Your task to perform on an android device: Add "usb-c to usb-a" to the cart on ebay Image 0: 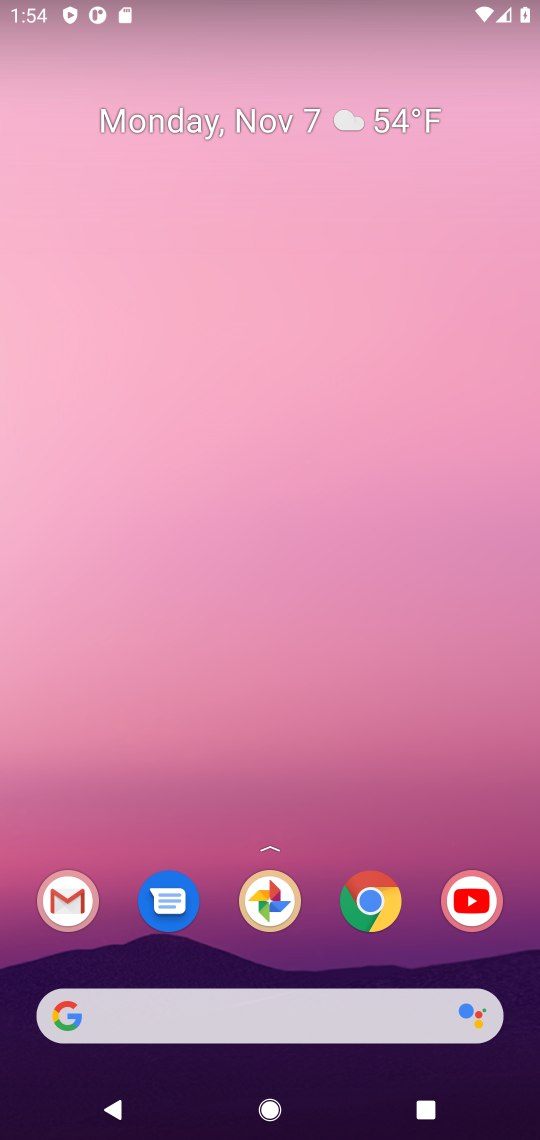
Step 0: click (368, 896)
Your task to perform on an android device: Add "usb-c to usb-a" to the cart on ebay Image 1: 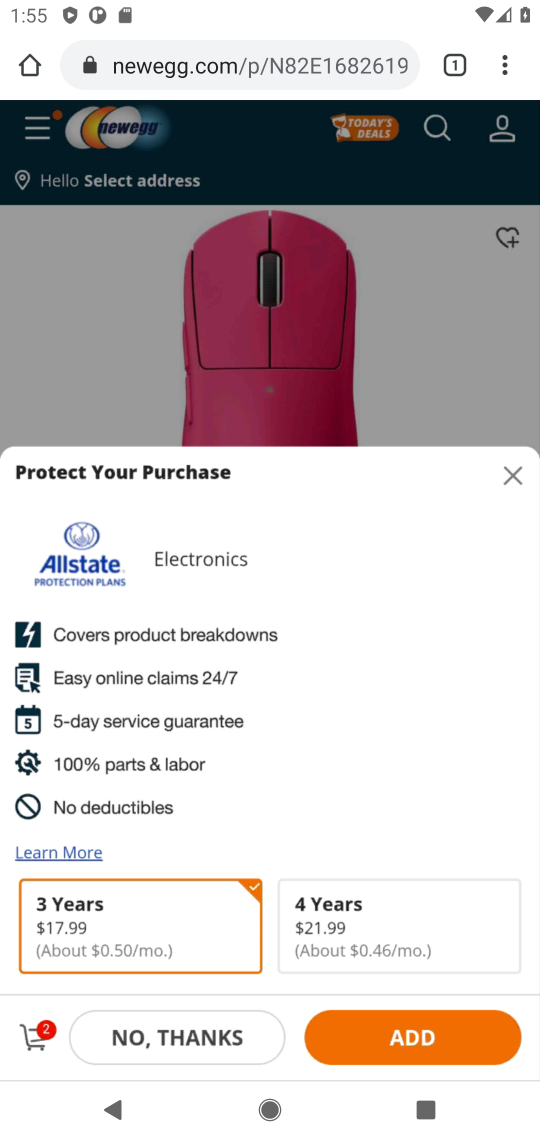
Step 1: click (368, 896)
Your task to perform on an android device: Add "usb-c to usb-a" to the cart on ebay Image 2: 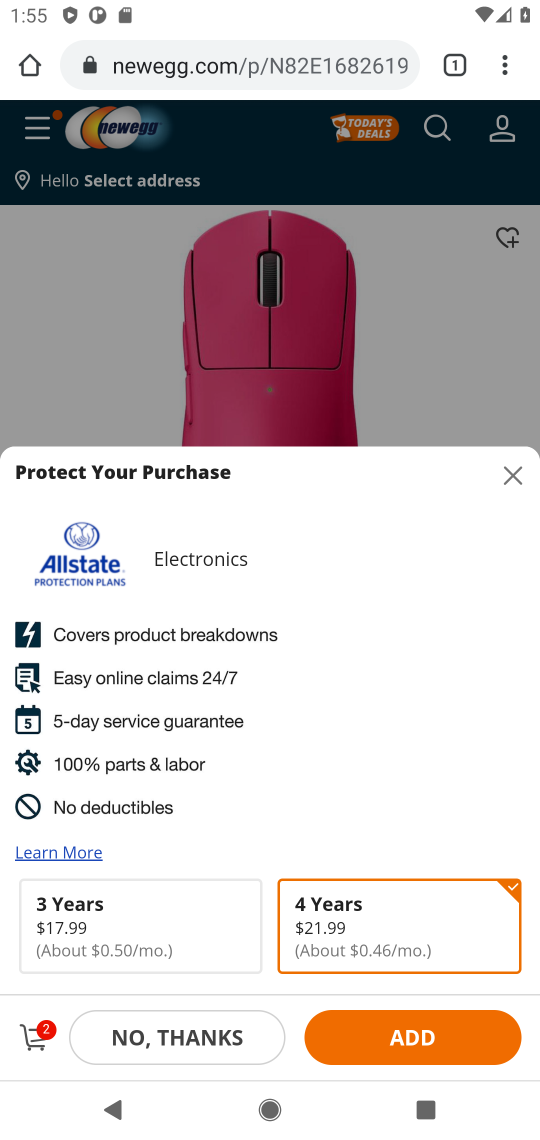
Step 2: click (163, 81)
Your task to perform on an android device: Add "usb-c to usb-a" to the cart on ebay Image 3: 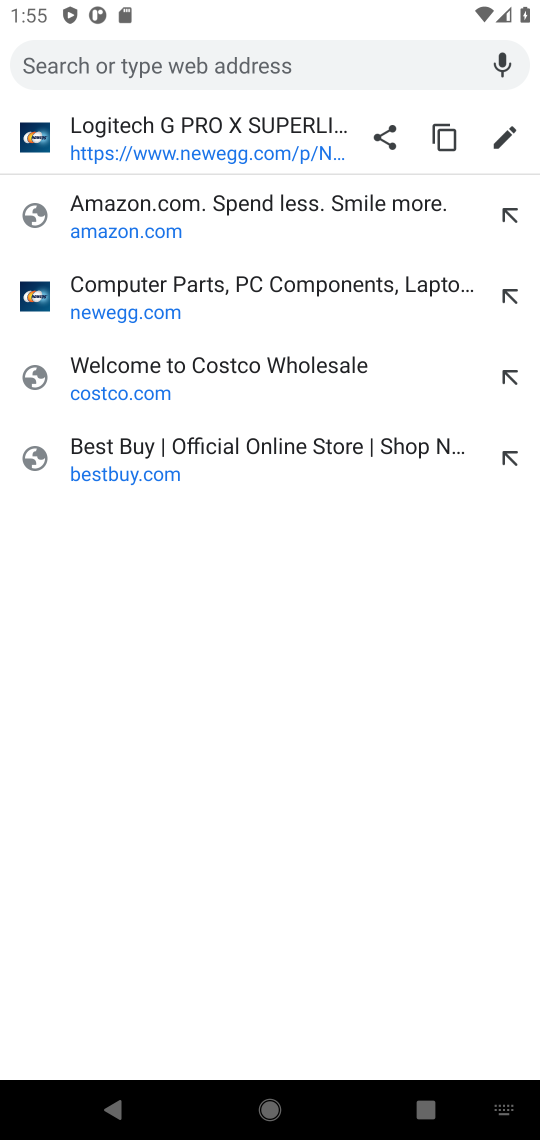
Step 3: type "ebay.com"
Your task to perform on an android device: Add "usb-c to usb-a" to the cart on ebay Image 4: 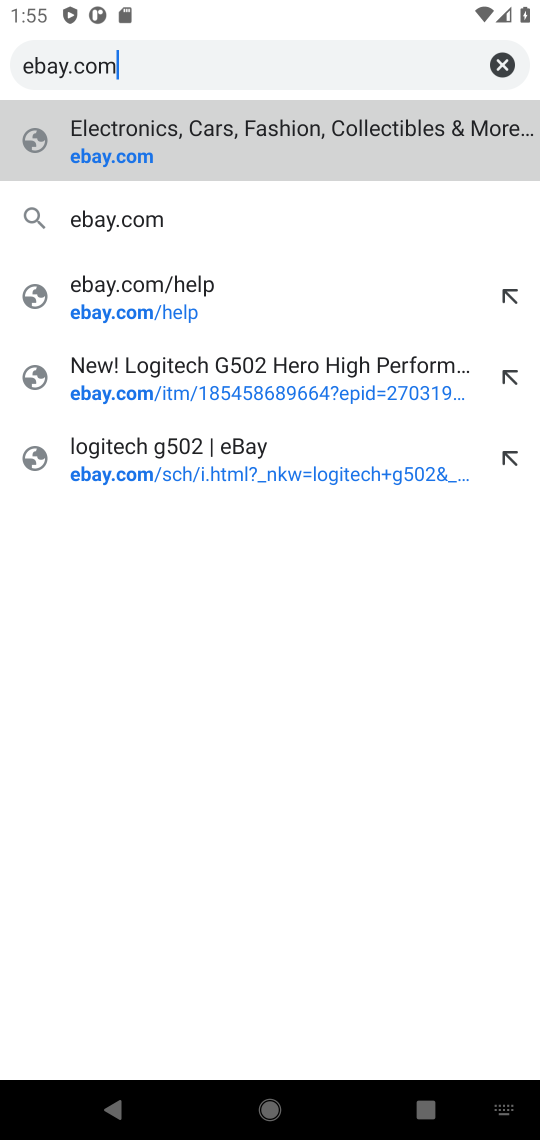
Step 4: click (103, 170)
Your task to perform on an android device: Add "usb-c to usb-a" to the cart on ebay Image 5: 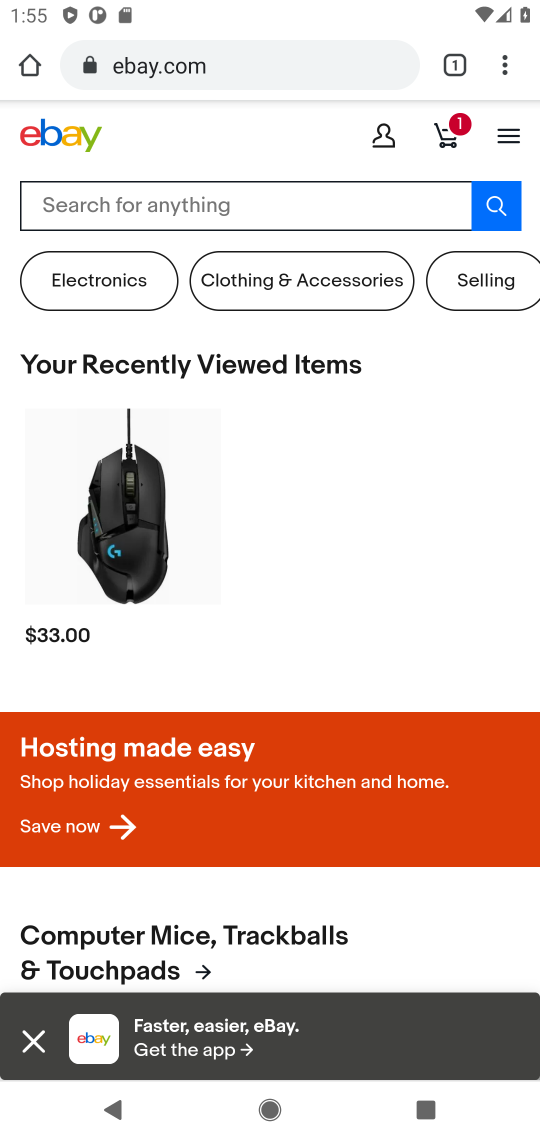
Step 5: click (121, 202)
Your task to perform on an android device: Add "usb-c to usb-a" to the cart on ebay Image 6: 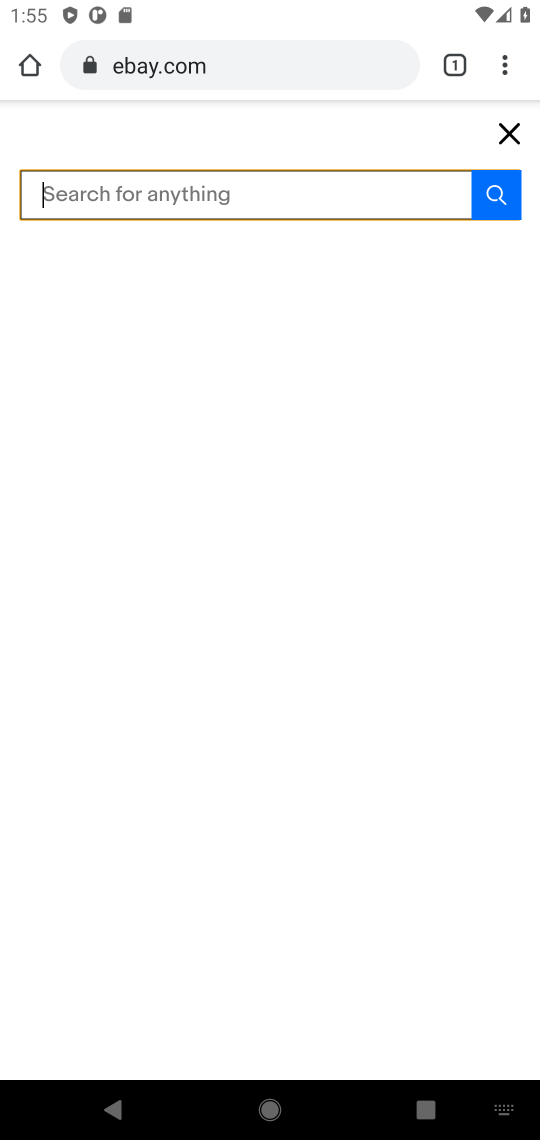
Step 6: type "usb-c to usb-a"
Your task to perform on an android device: Add "usb-c to usb-a" to the cart on ebay Image 7: 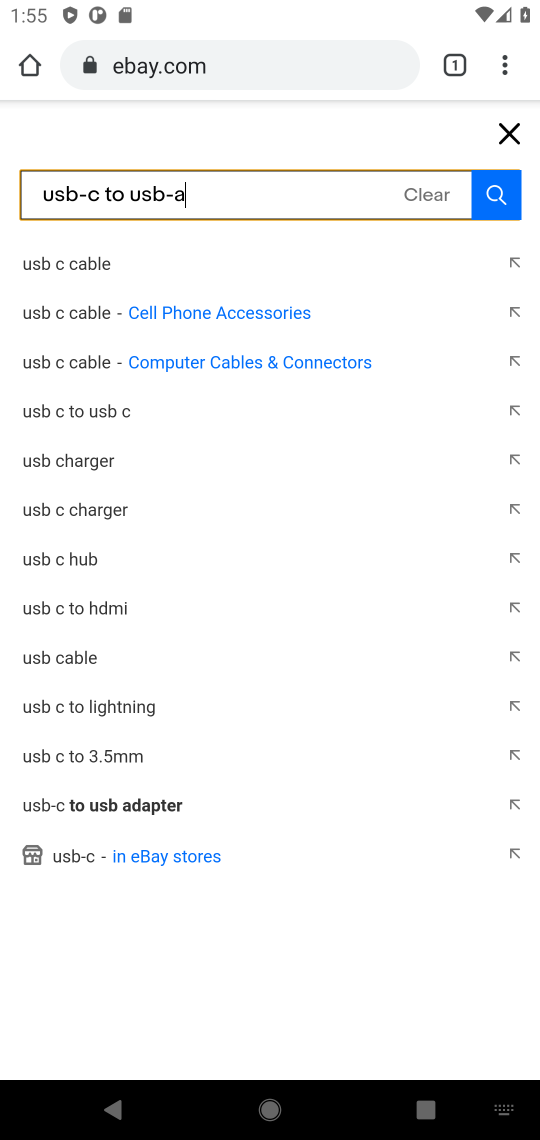
Step 7: click (493, 201)
Your task to perform on an android device: Add "usb-c to usb-a" to the cart on ebay Image 8: 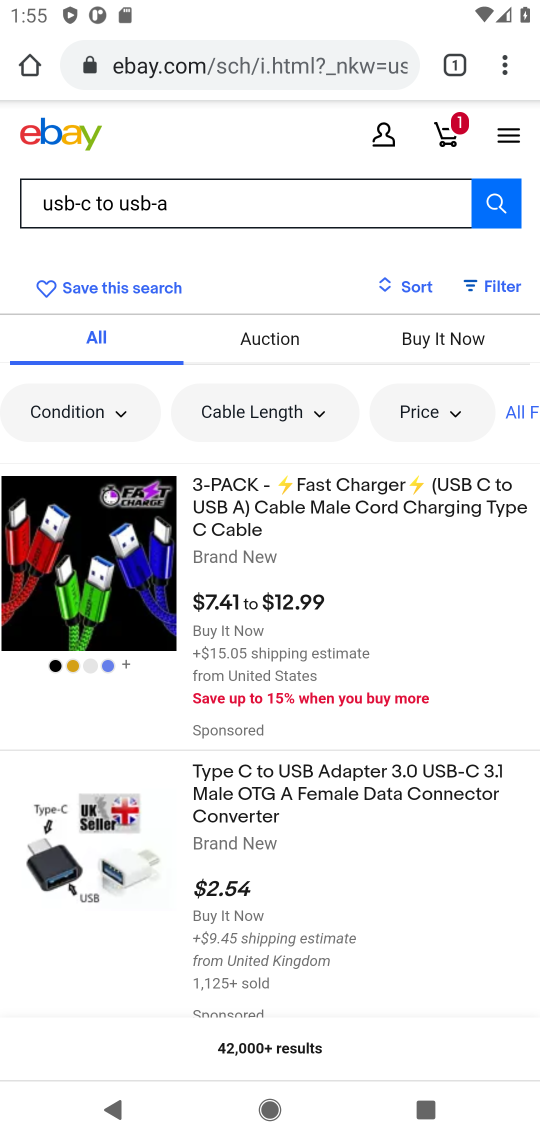
Step 8: click (100, 567)
Your task to perform on an android device: Add "usb-c to usb-a" to the cart on ebay Image 9: 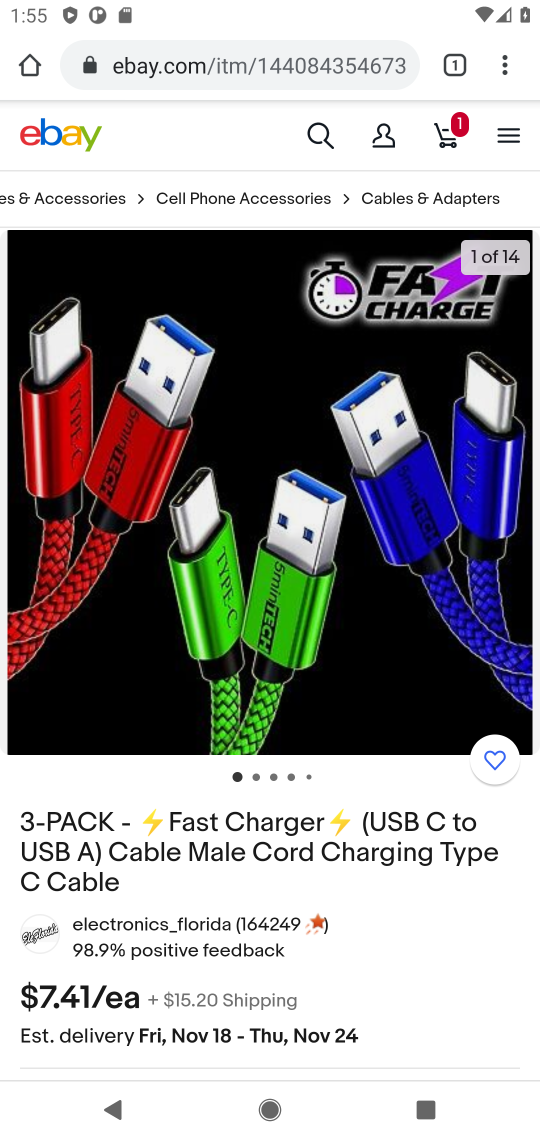
Step 9: drag from (299, 880) to (308, 418)
Your task to perform on an android device: Add "usb-c to usb-a" to the cart on ebay Image 10: 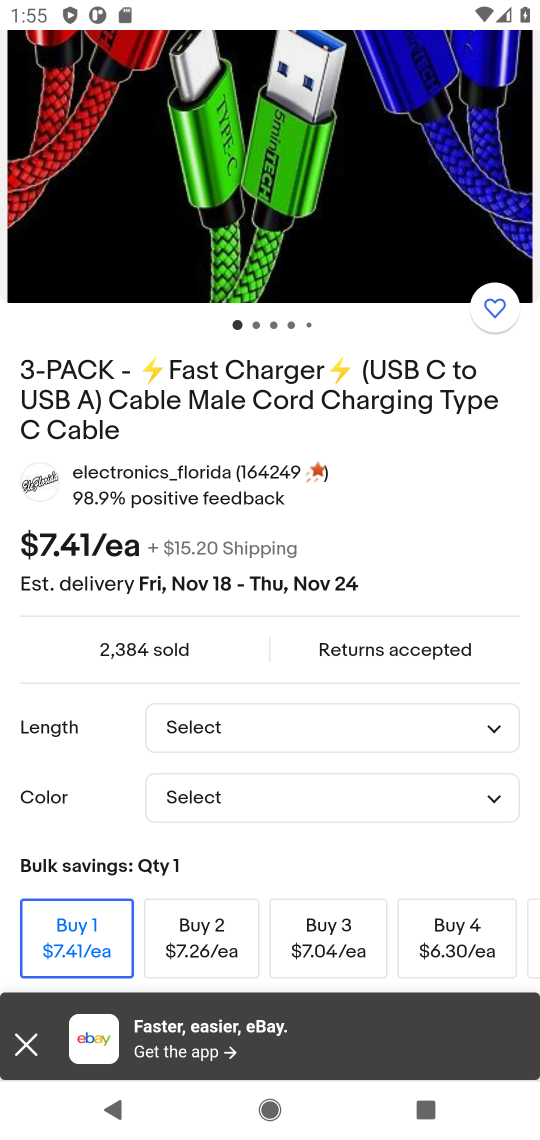
Step 10: drag from (290, 746) to (289, 337)
Your task to perform on an android device: Add "usb-c to usb-a" to the cart on ebay Image 11: 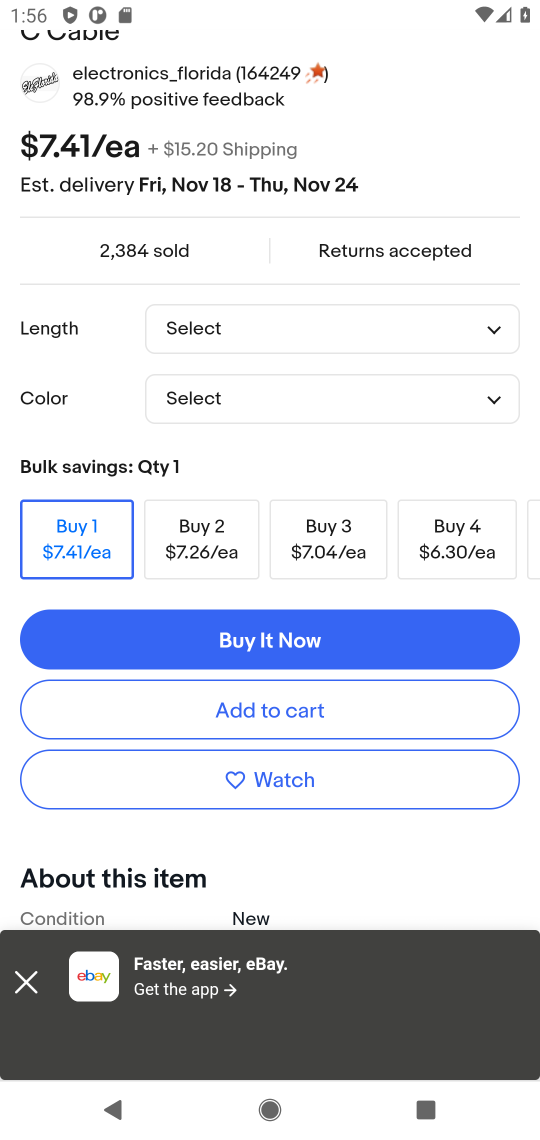
Step 11: click (274, 705)
Your task to perform on an android device: Add "usb-c to usb-a" to the cart on ebay Image 12: 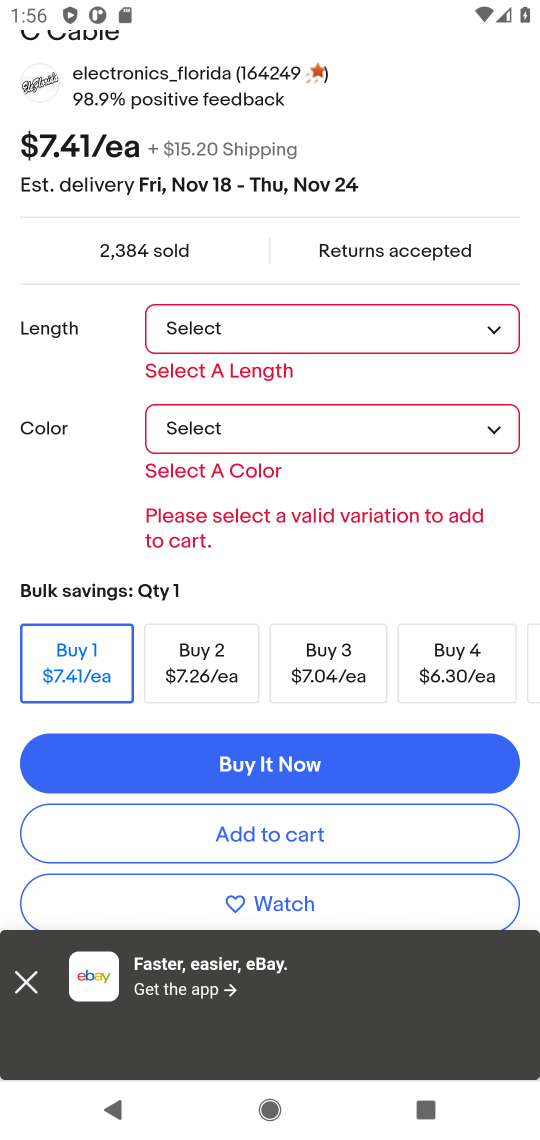
Step 12: click (492, 436)
Your task to perform on an android device: Add "usb-c to usb-a" to the cart on ebay Image 13: 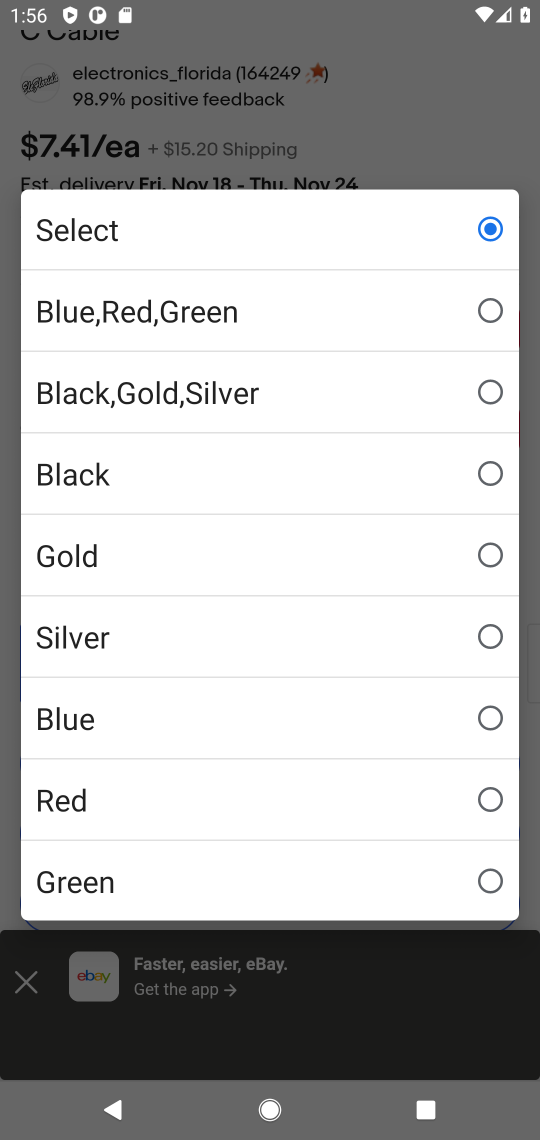
Step 13: click (79, 482)
Your task to perform on an android device: Add "usb-c to usb-a" to the cart on ebay Image 14: 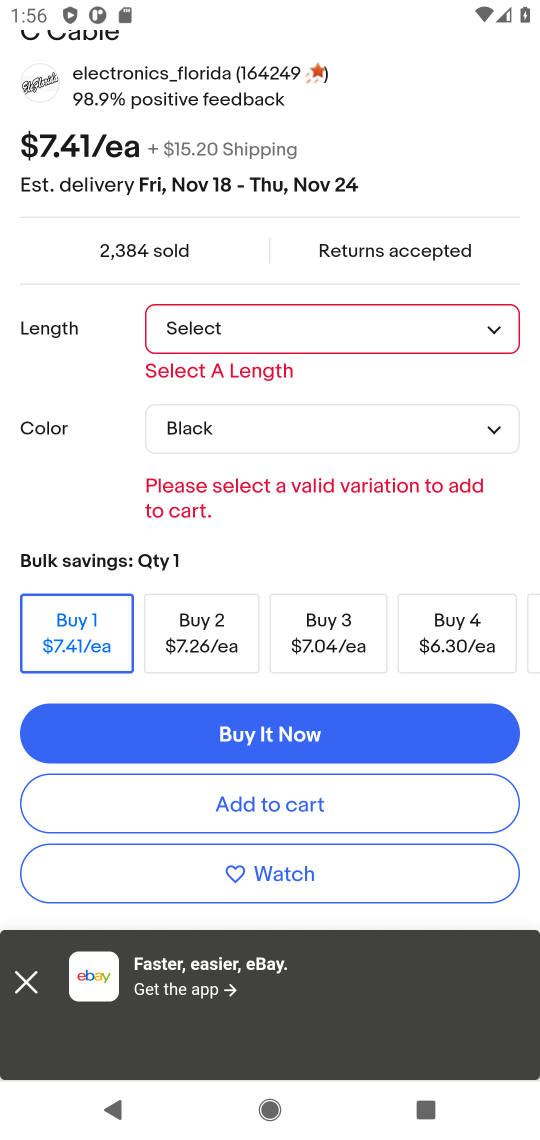
Step 14: click (492, 327)
Your task to perform on an android device: Add "usb-c to usb-a" to the cart on ebay Image 15: 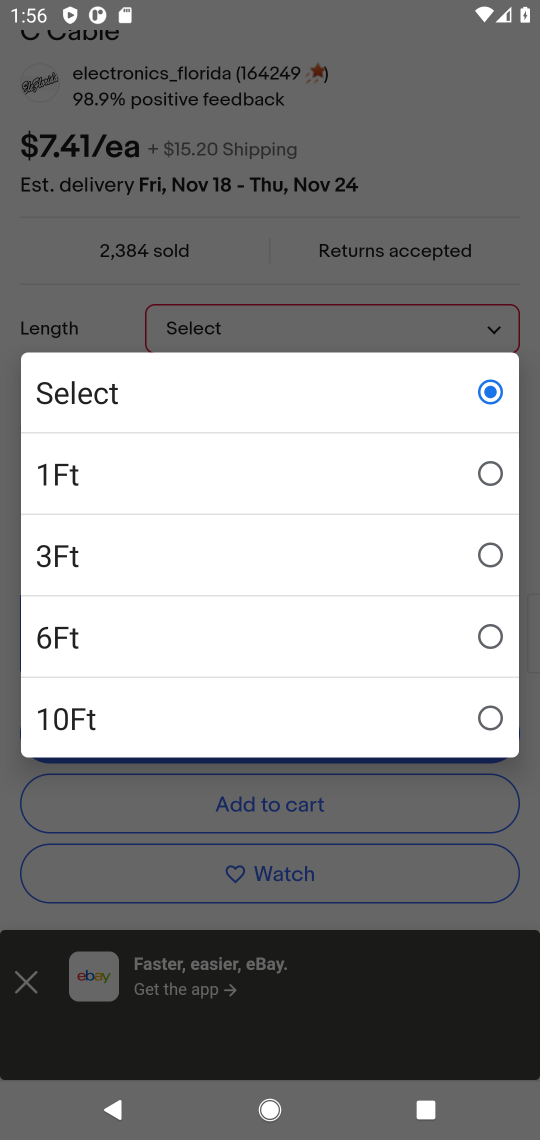
Step 15: click (67, 477)
Your task to perform on an android device: Add "usb-c to usb-a" to the cart on ebay Image 16: 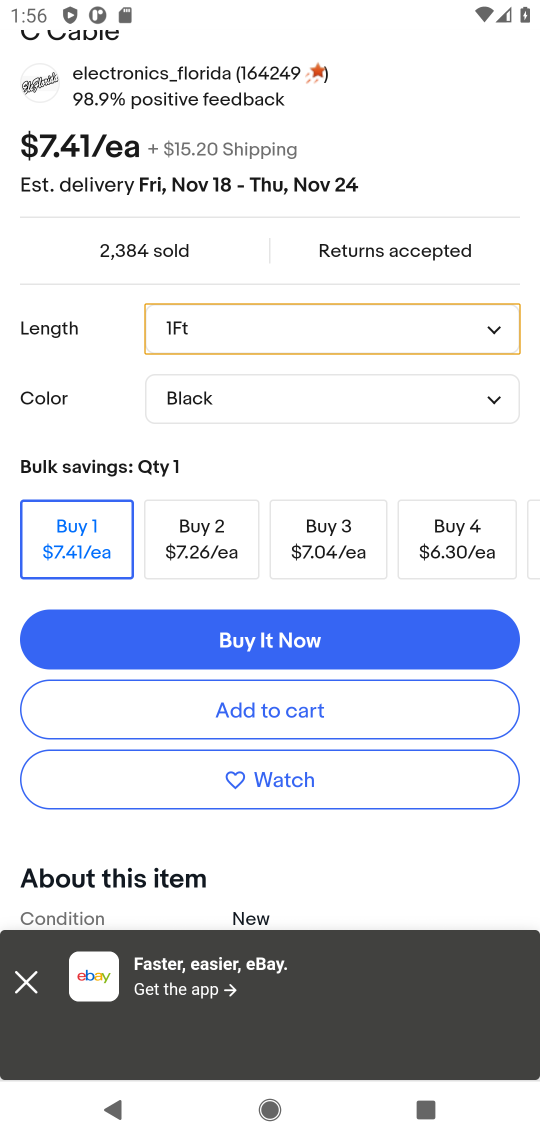
Step 16: click (294, 712)
Your task to perform on an android device: Add "usb-c to usb-a" to the cart on ebay Image 17: 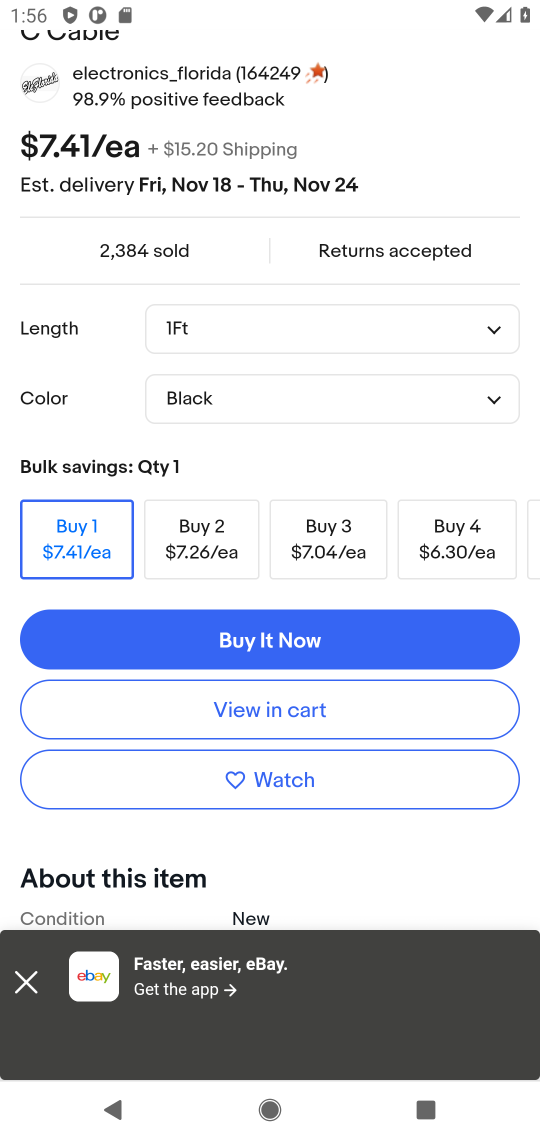
Step 17: task complete